Your task to perform on an android device: Go to display settings Image 0: 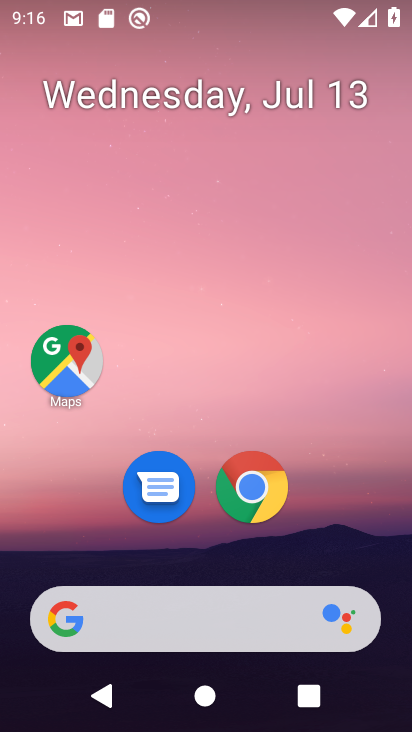
Step 0: drag from (182, 579) to (155, 9)
Your task to perform on an android device: Go to display settings Image 1: 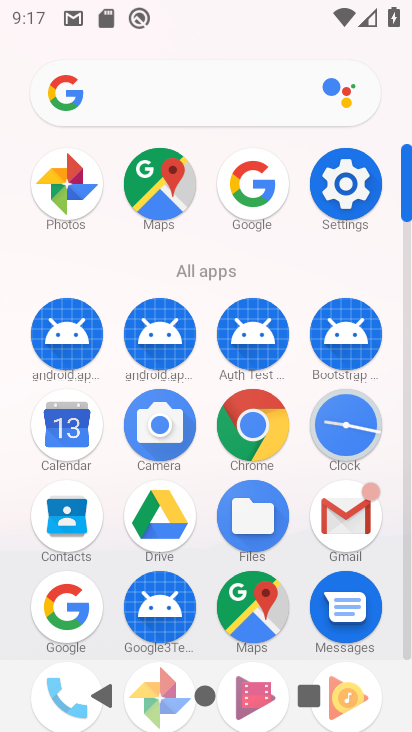
Step 1: click (348, 160)
Your task to perform on an android device: Go to display settings Image 2: 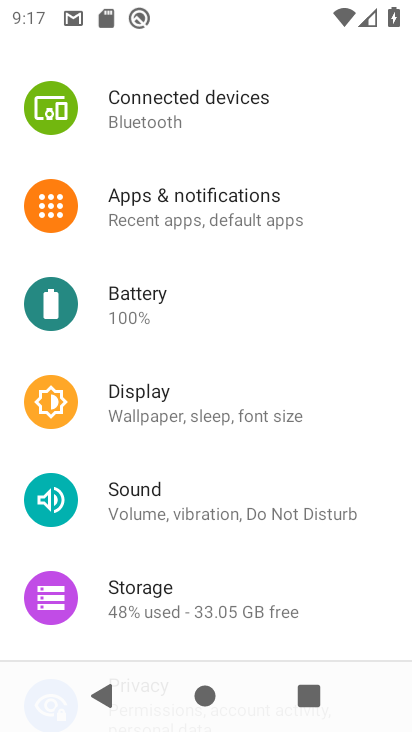
Step 2: click (158, 420)
Your task to perform on an android device: Go to display settings Image 3: 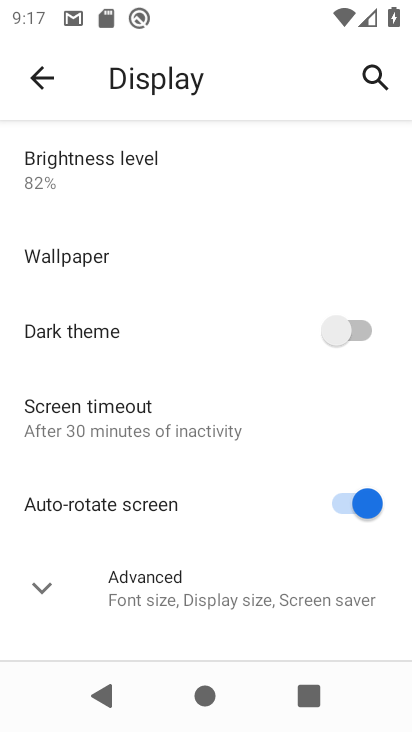
Step 3: click (159, 578)
Your task to perform on an android device: Go to display settings Image 4: 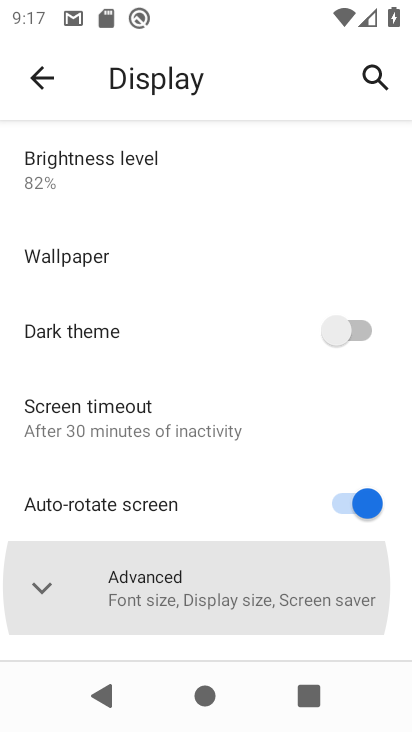
Step 4: drag from (158, 578) to (99, 216)
Your task to perform on an android device: Go to display settings Image 5: 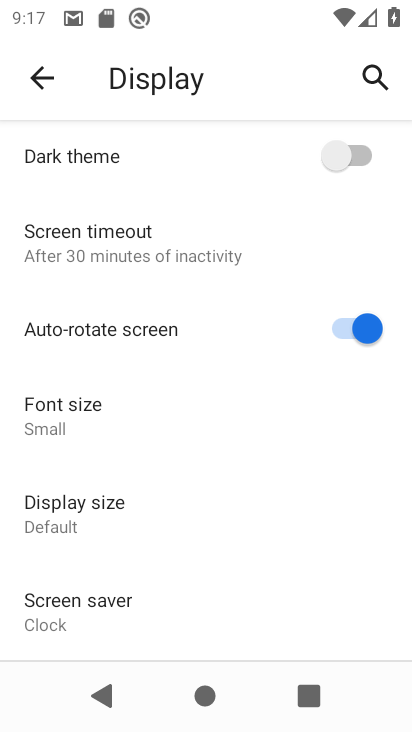
Step 5: click (72, 421)
Your task to perform on an android device: Go to display settings Image 6: 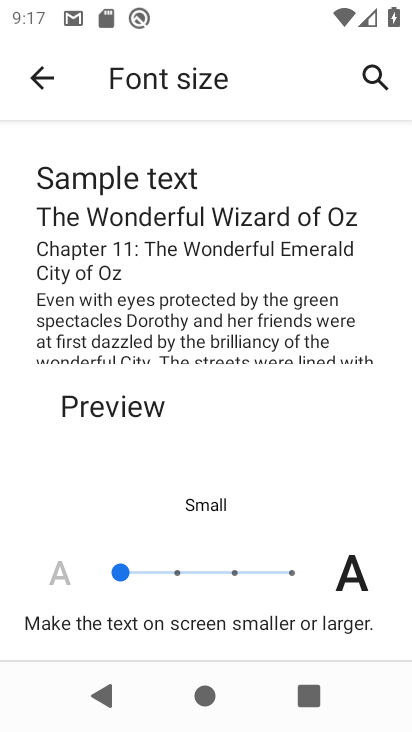
Step 6: click (41, 87)
Your task to perform on an android device: Go to display settings Image 7: 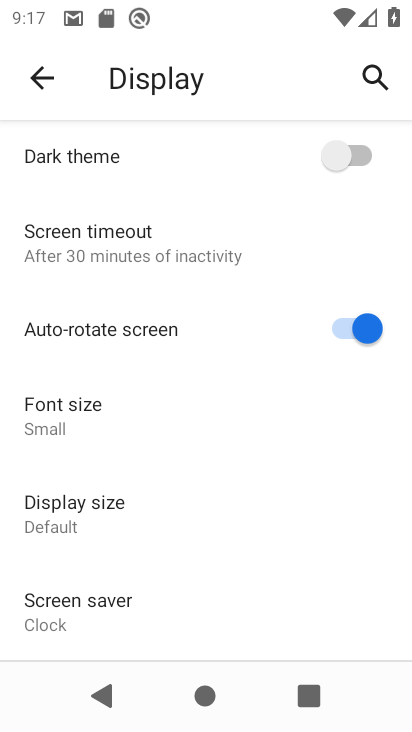
Step 7: click (117, 515)
Your task to perform on an android device: Go to display settings Image 8: 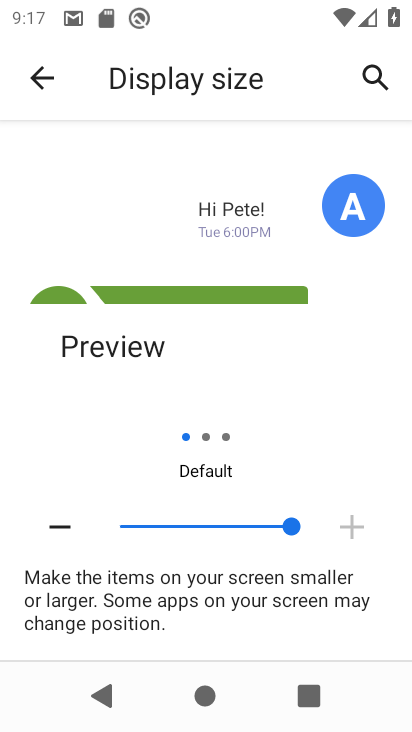
Step 8: click (195, 529)
Your task to perform on an android device: Go to display settings Image 9: 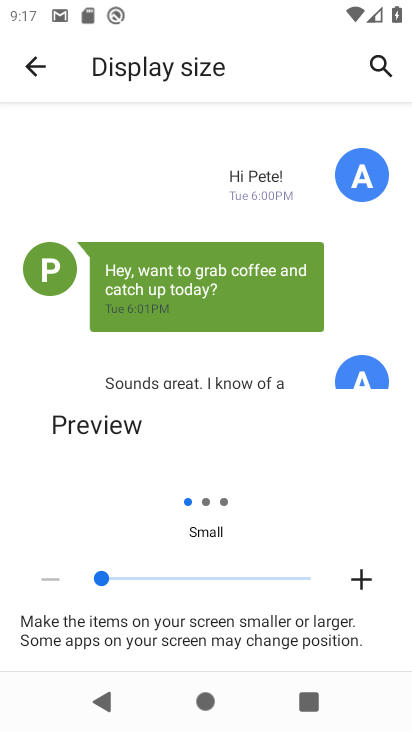
Step 9: task complete